Your task to perform on an android device: allow notifications from all sites in the chrome app Image 0: 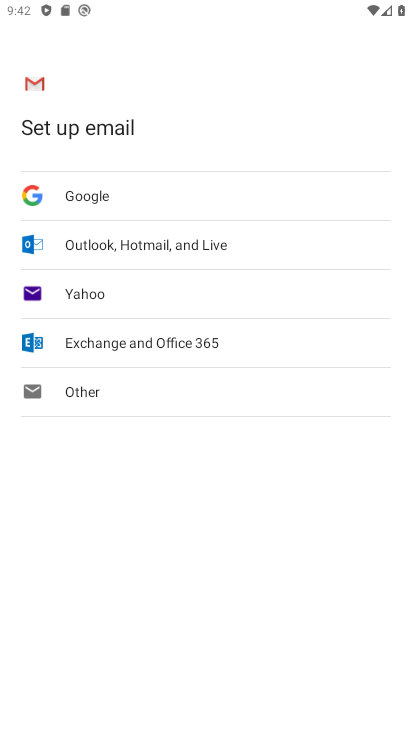
Step 0: press home button
Your task to perform on an android device: allow notifications from all sites in the chrome app Image 1: 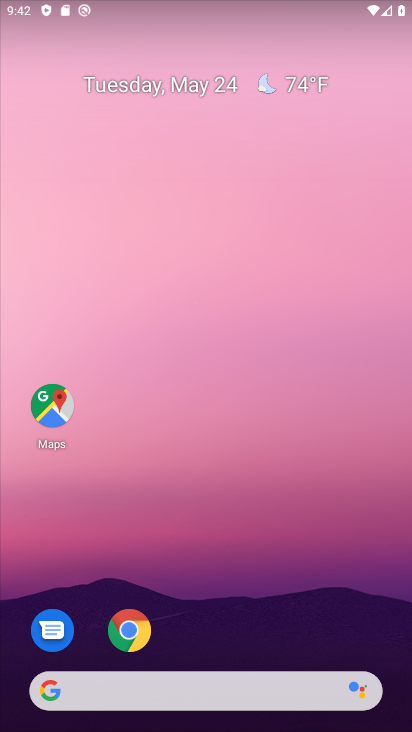
Step 1: click (126, 637)
Your task to perform on an android device: allow notifications from all sites in the chrome app Image 2: 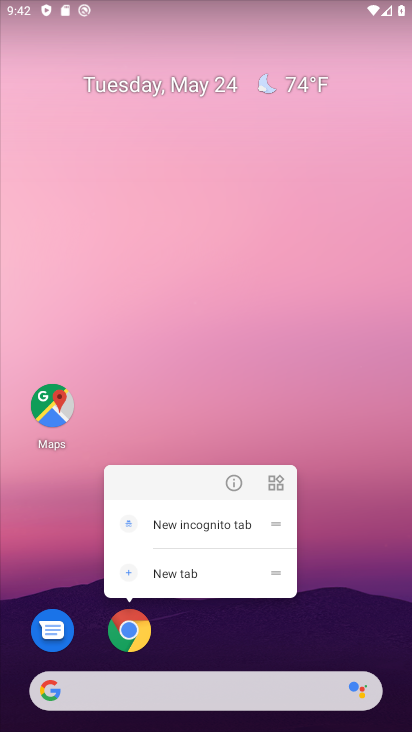
Step 2: click (230, 482)
Your task to perform on an android device: allow notifications from all sites in the chrome app Image 3: 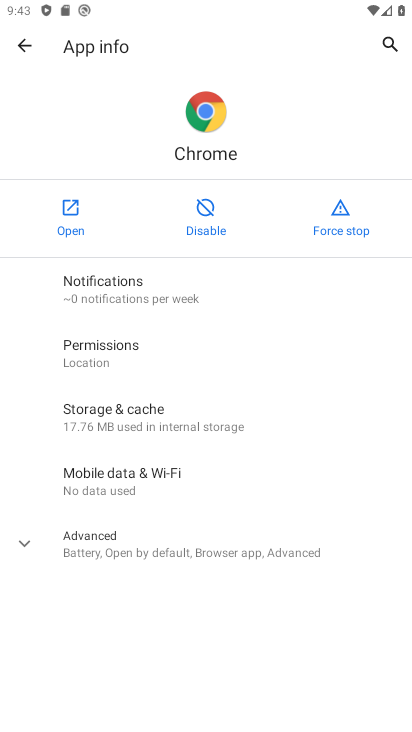
Step 3: click (128, 296)
Your task to perform on an android device: allow notifications from all sites in the chrome app Image 4: 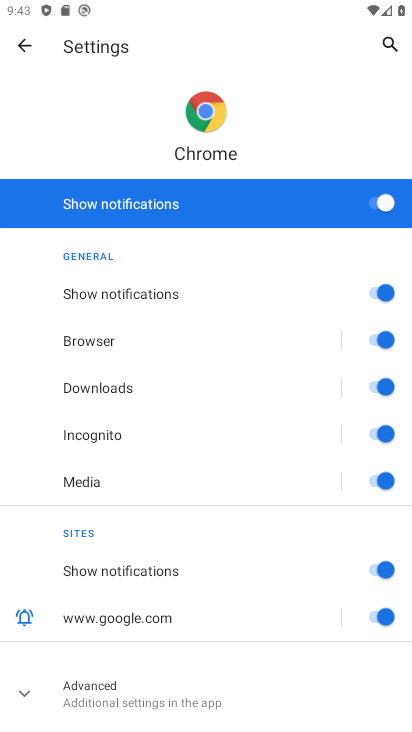
Step 4: task complete